Your task to perform on an android device: turn on improve location accuracy Image 0: 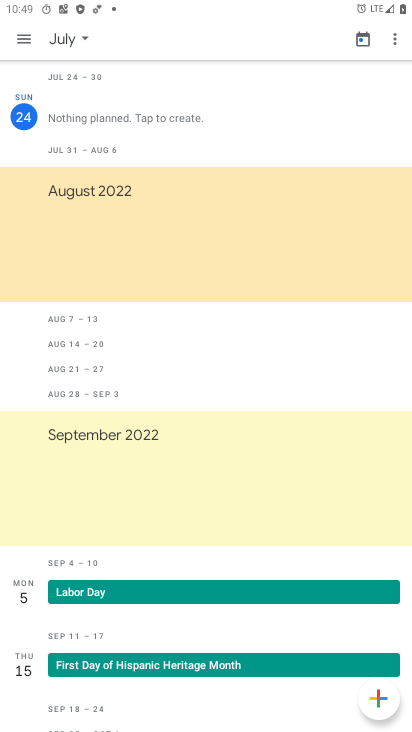
Step 0: press home button
Your task to perform on an android device: turn on improve location accuracy Image 1: 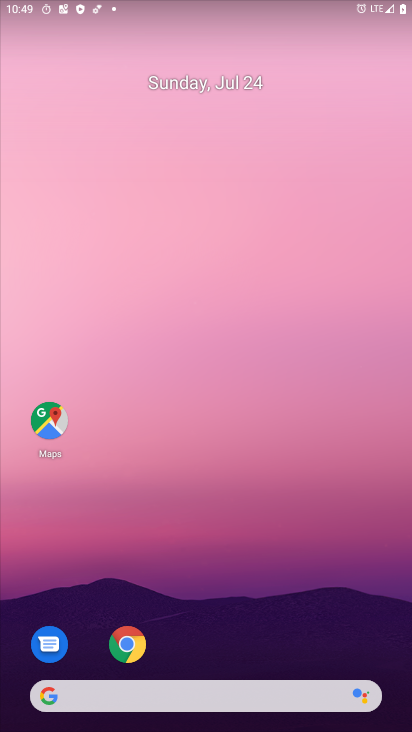
Step 1: drag from (181, 675) to (192, 157)
Your task to perform on an android device: turn on improve location accuracy Image 2: 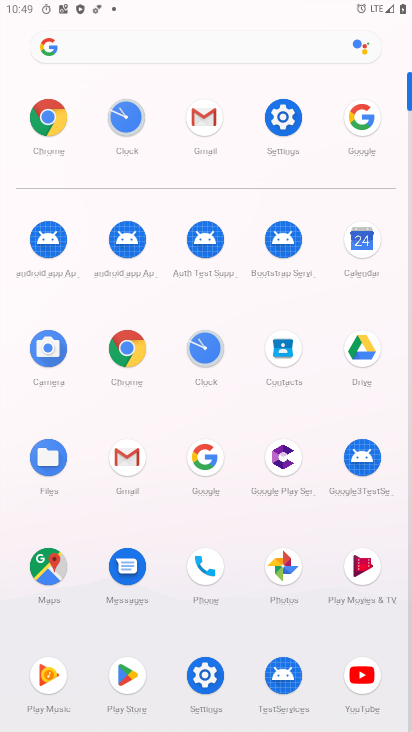
Step 2: click (202, 685)
Your task to perform on an android device: turn on improve location accuracy Image 3: 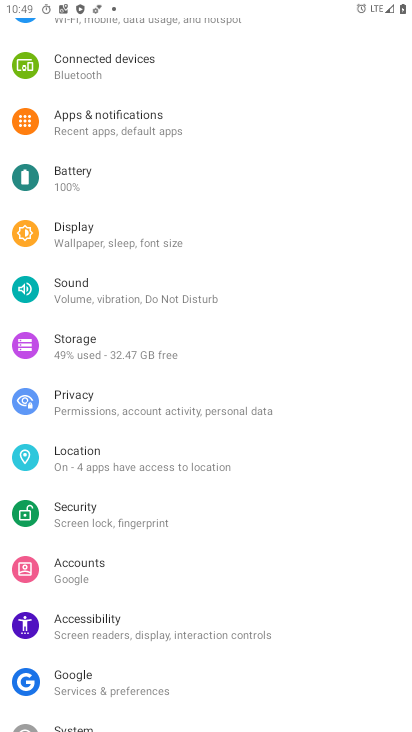
Step 3: click (92, 461)
Your task to perform on an android device: turn on improve location accuracy Image 4: 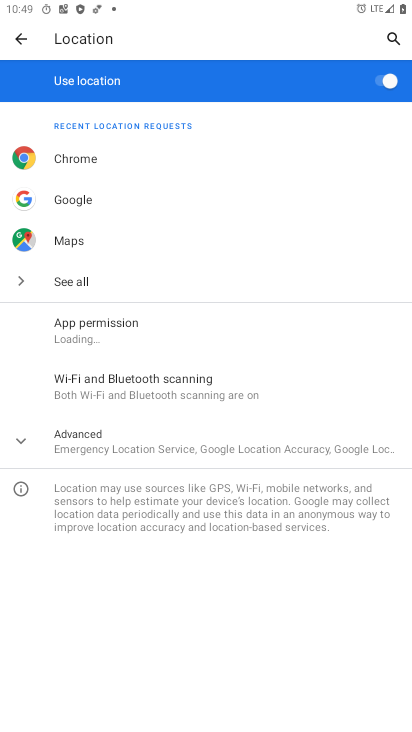
Step 4: click (89, 447)
Your task to perform on an android device: turn on improve location accuracy Image 5: 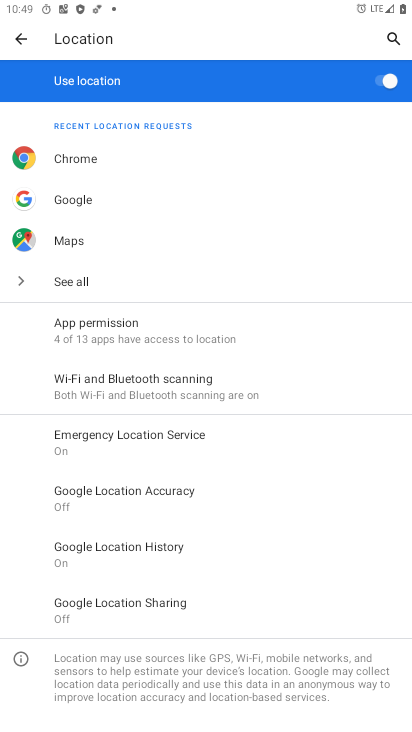
Step 5: click (113, 493)
Your task to perform on an android device: turn on improve location accuracy Image 6: 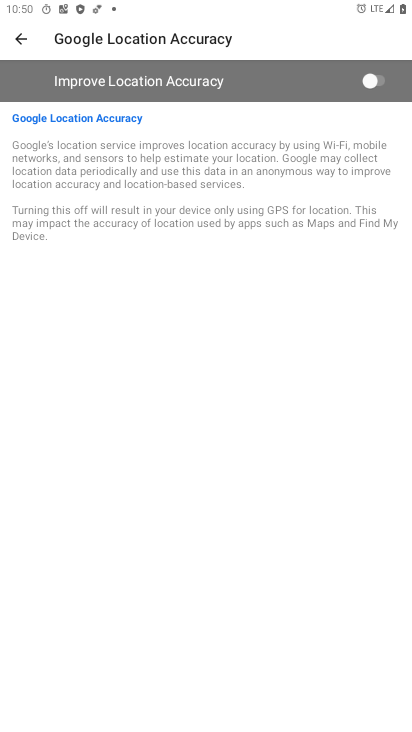
Step 6: click (371, 77)
Your task to perform on an android device: turn on improve location accuracy Image 7: 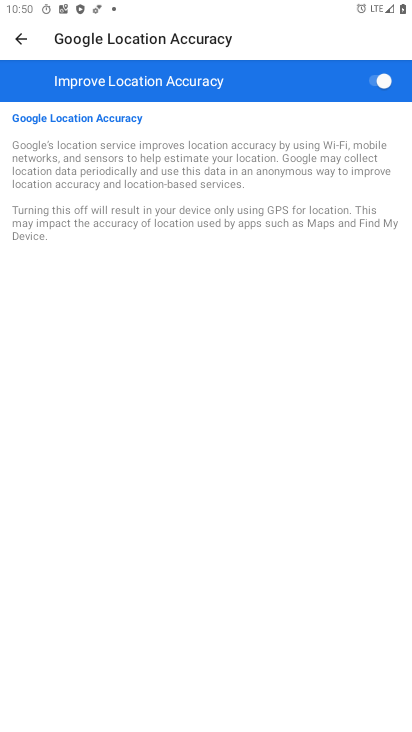
Step 7: task complete